Your task to perform on an android device: add a label to a message in the gmail app Image 0: 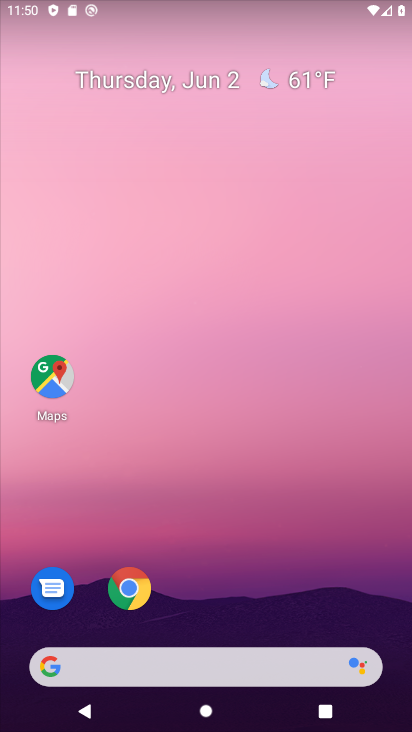
Step 0: drag from (261, 611) to (209, 25)
Your task to perform on an android device: add a label to a message in the gmail app Image 1: 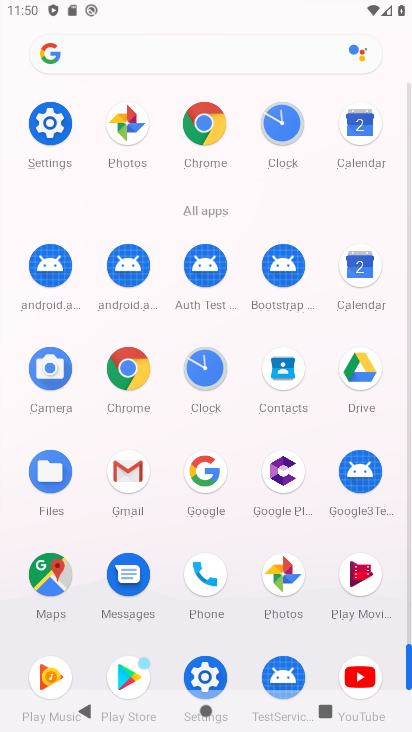
Step 1: click (127, 485)
Your task to perform on an android device: add a label to a message in the gmail app Image 2: 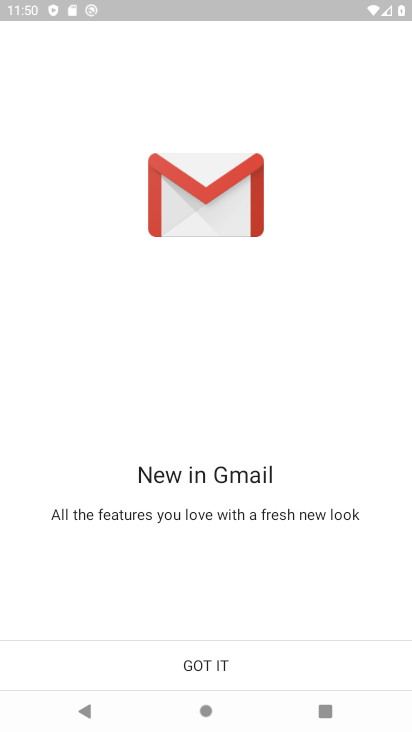
Step 2: click (197, 667)
Your task to perform on an android device: add a label to a message in the gmail app Image 3: 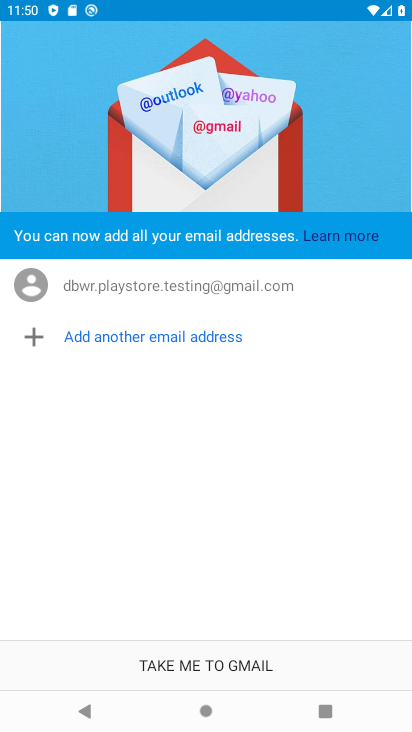
Step 3: click (236, 662)
Your task to perform on an android device: add a label to a message in the gmail app Image 4: 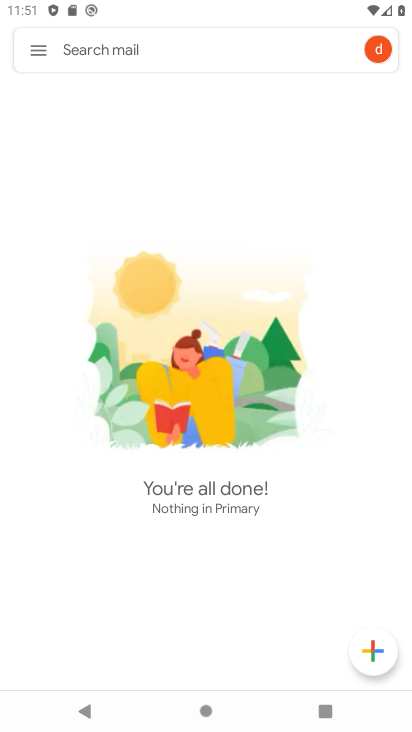
Step 4: click (51, 49)
Your task to perform on an android device: add a label to a message in the gmail app Image 5: 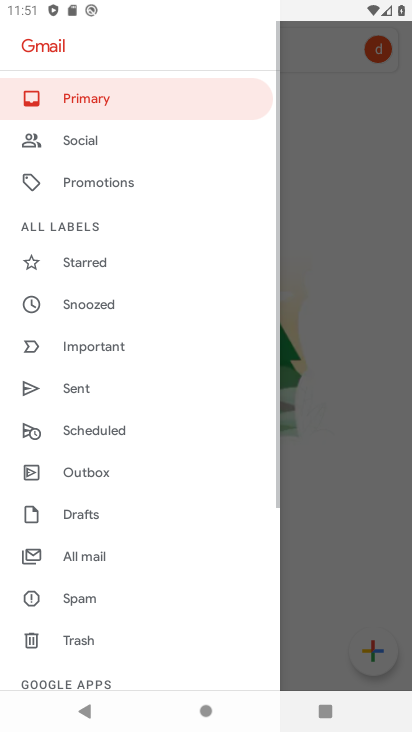
Step 5: drag from (120, 610) to (103, 410)
Your task to perform on an android device: add a label to a message in the gmail app Image 6: 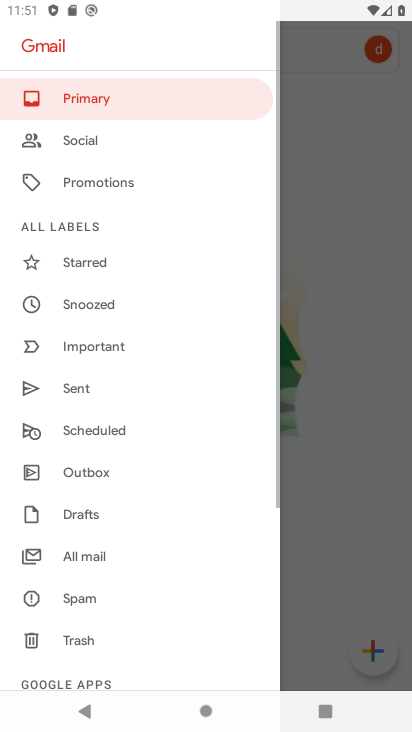
Step 6: click (83, 558)
Your task to perform on an android device: add a label to a message in the gmail app Image 7: 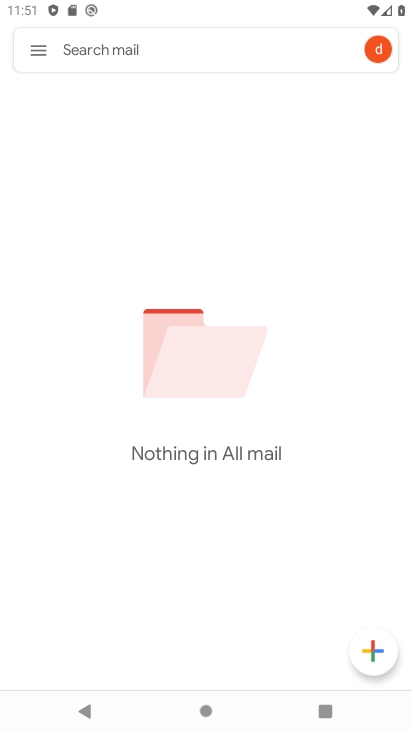
Step 7: task complete